Your task to perform on an android device: Is it going to rain tomorrow? Image 0: 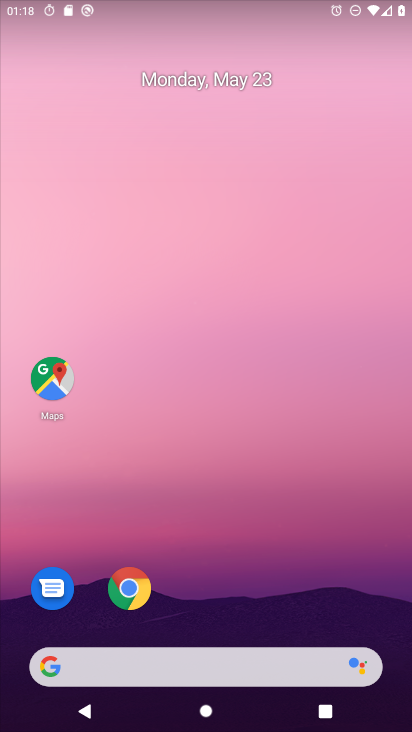
Step 0: drag from (242, 691) to (182, 113)
Your task to perform on an android device: Is it going to rain tomorrow? Image 1: 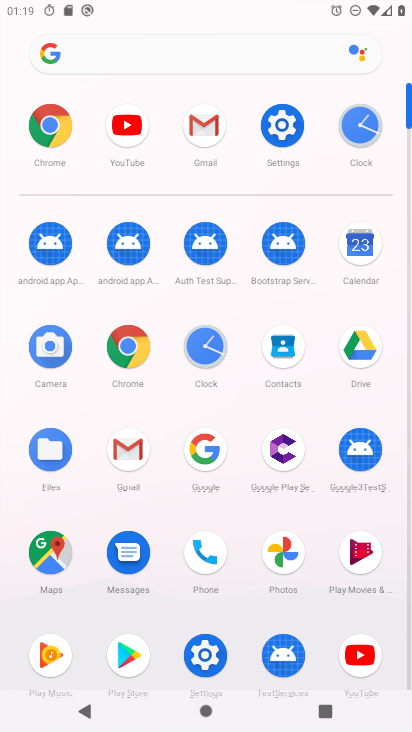
Step 1: click (122, 58)
Your task to perform on an android device: Is it going to rain tomorrow? Image 2: 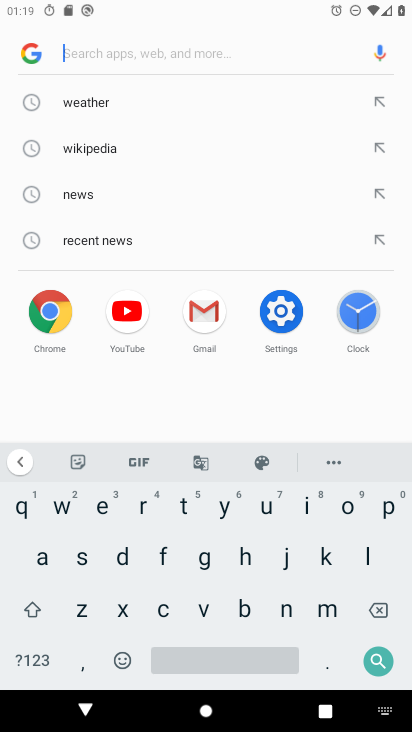
Step 2: click (123, 108)
Your task to perform on an android device: Is it going to rain tomorrow? Image 3: 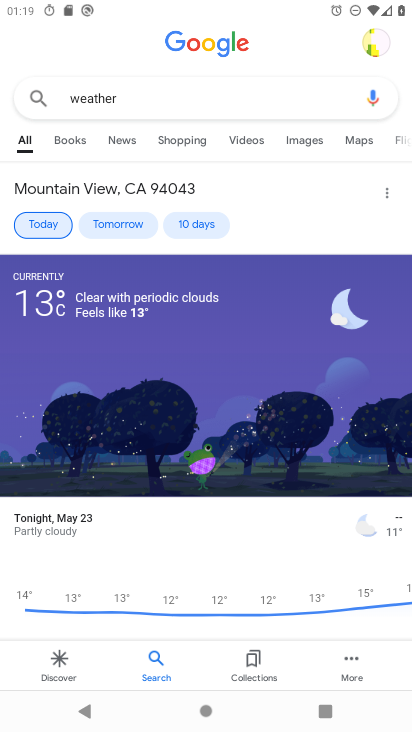
Step 3: click (119, 218)
Your task to perform on an android device: Is it going to rain tomorrow? Image 4: 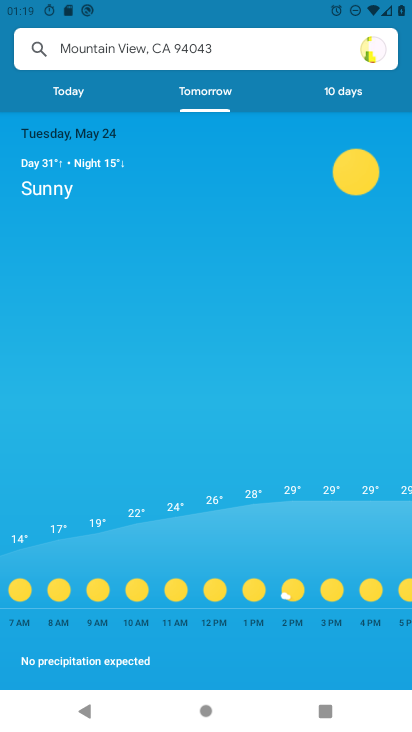
Step 4: task complete